Your task to perform on an android device: Do I have any events tomorrow? Image 0: 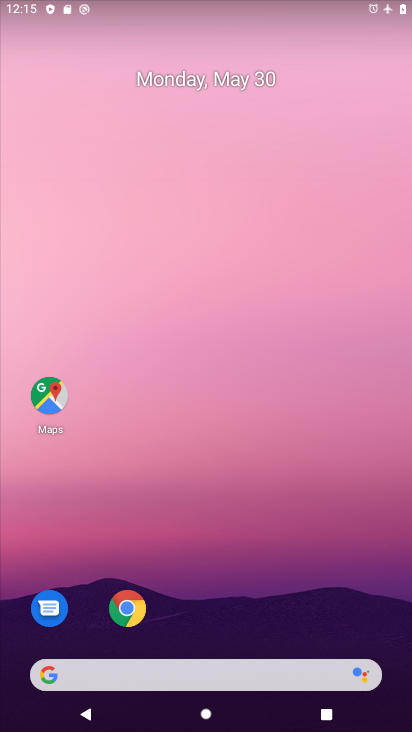
Step 0: drag from (211, 635) to (115, 38)
Your task to perform on an android device: Do I have any events tomorrow? Image 1: 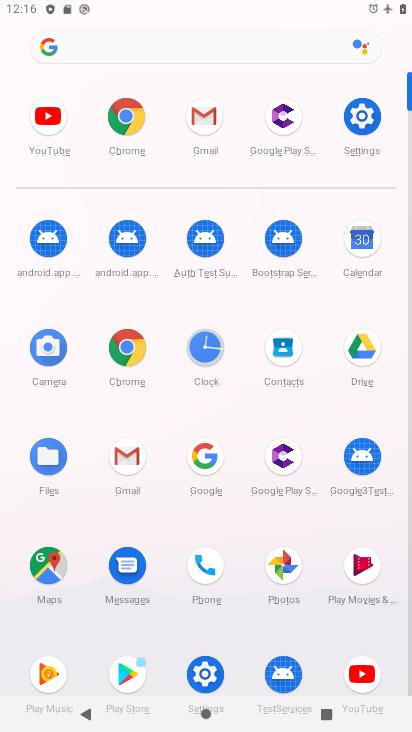
Step 1: click (370, 242)
Your task to perform on an android device: Do I have any events tomorrow? Image 2: 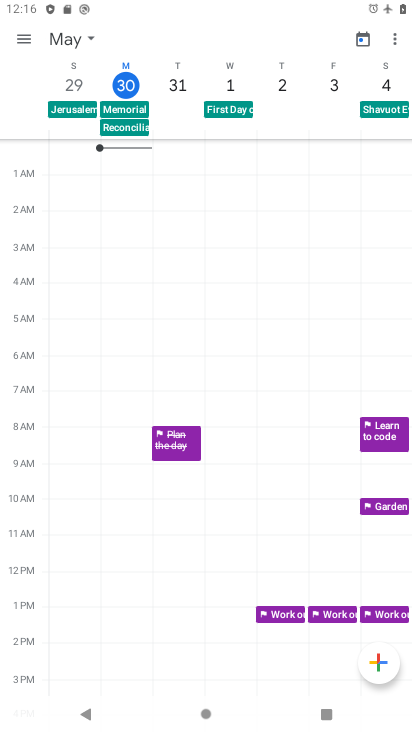
Step 2: click (167, 83)
Your task to perform on an android device: Do I have any events tomorrow? Image 3: 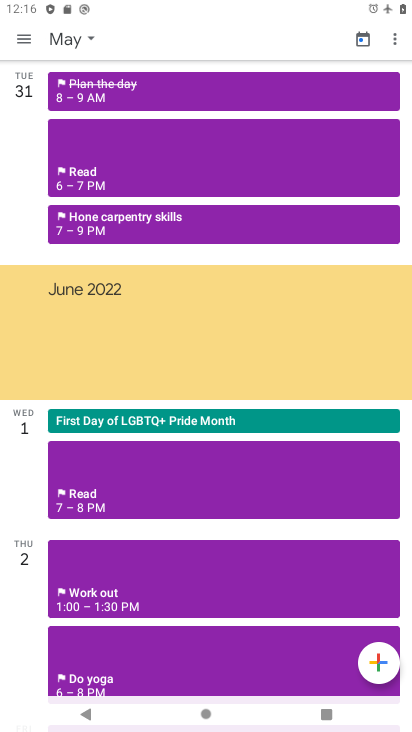
Step 3: task complete